Your task to perform on an android device: Open internet settings Image 0: 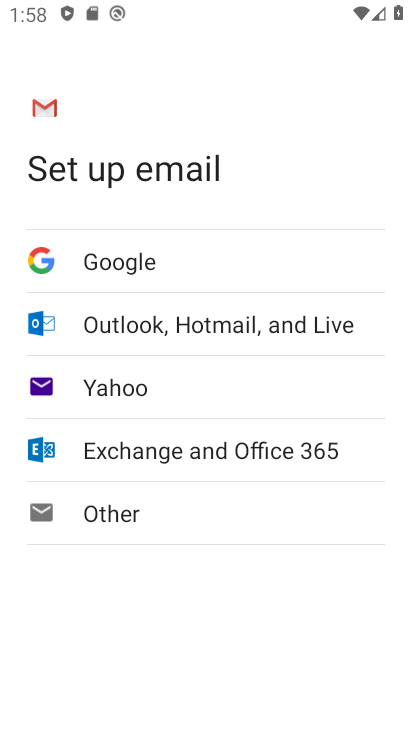
Step 0: press home button
Your task to perform on an android device: Open internet settings Image 1: 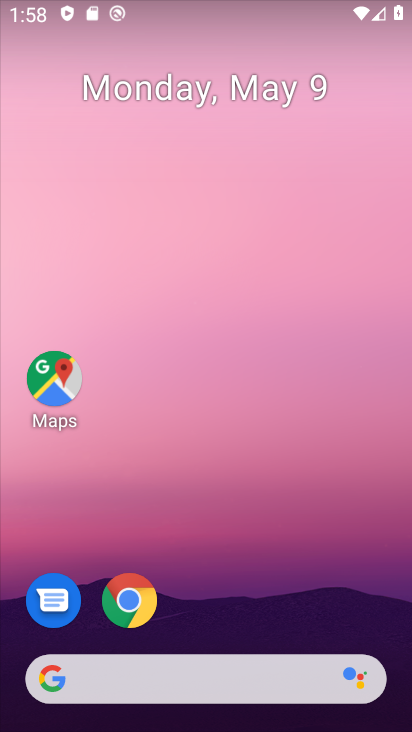
Step 1: drag from (255, 617) to (248, 202)
Your task to perform on an android device: Open internet settings Image 2: 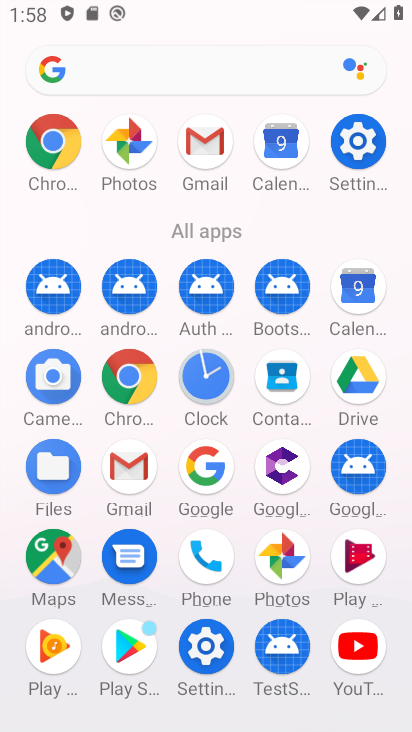
Step 2: click (373, 158)
Your task to perform on an android device: Open internet settings Image 3: 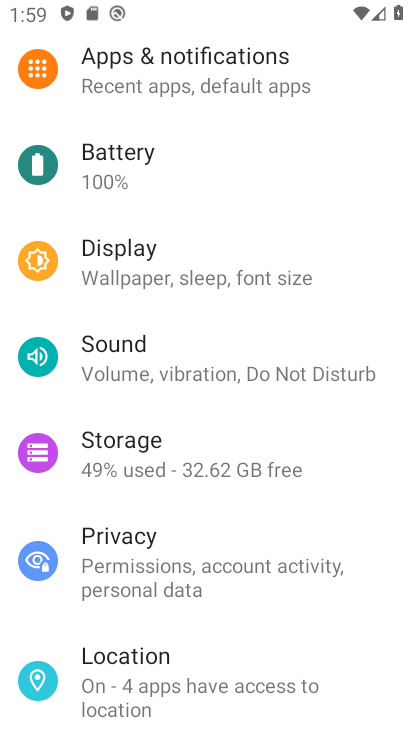
Step 3: drag from (242, 245) to (224, 634)
Your task to perform on an android device: Open internet settings Image 4: 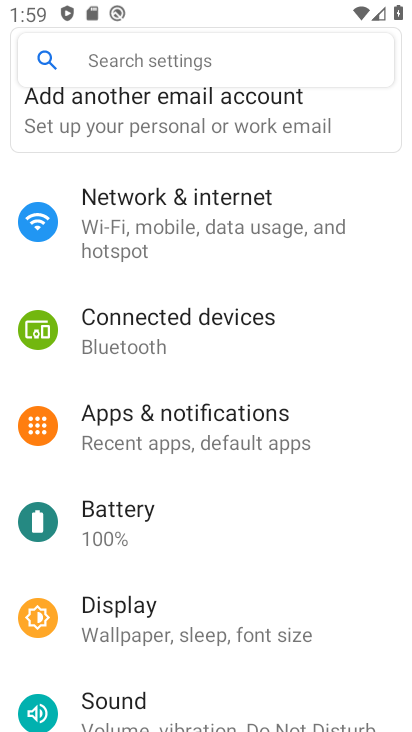
Step 4: click (163, 249)
Your task to perform on an android device: Open internet settings Image 5: 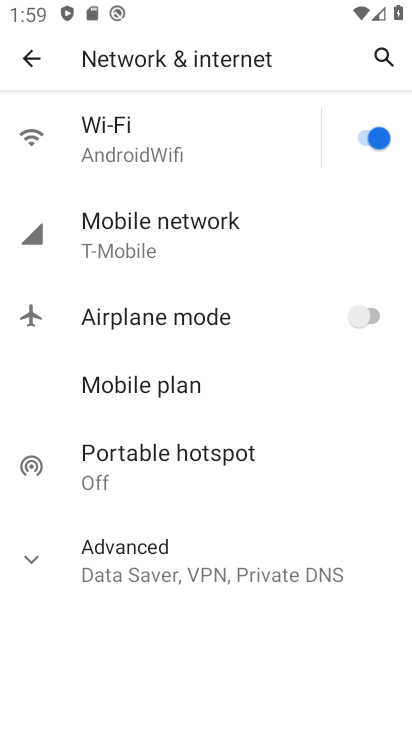
Step 5: click (169, 252)
Your task to perform on an android device: Open internet settings Image 6: 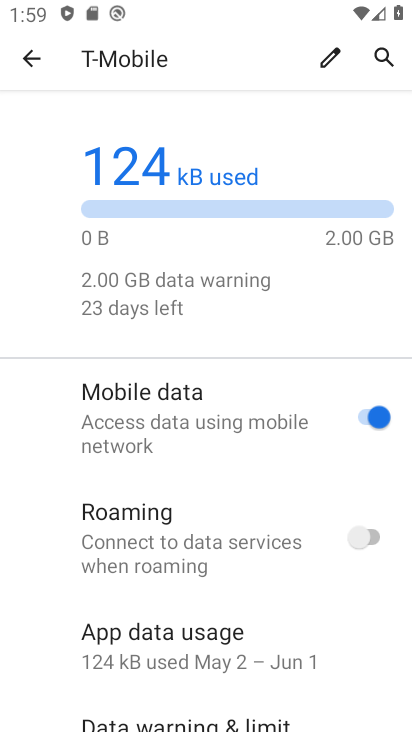
Step 6: task complete